Your task to perform on an android device: toggle javascript in the chrome app Image 0: 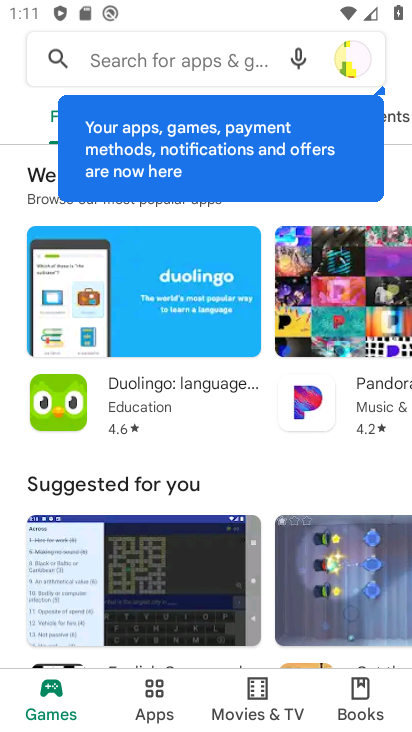
Step 0: press home button
Your task to perform on an android device: toggle javascript in the chrome app Image 1: 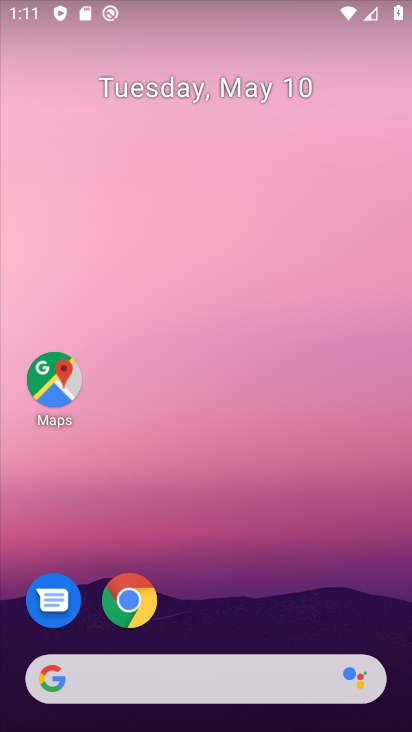
Step 1: drag from (217, 655) to (262, 212)
Your task to perform on an android device: toggle javascript in the chrome app Image 2: 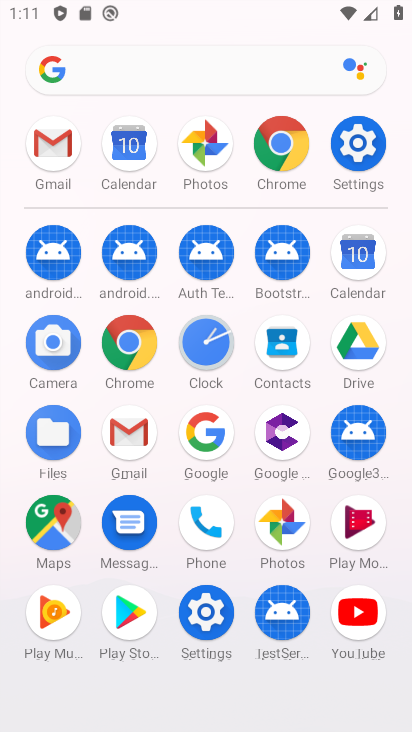
Step 2: click (281, 163)
Your task to perform on an android device: toggle javascript in the chrome app Image 3: 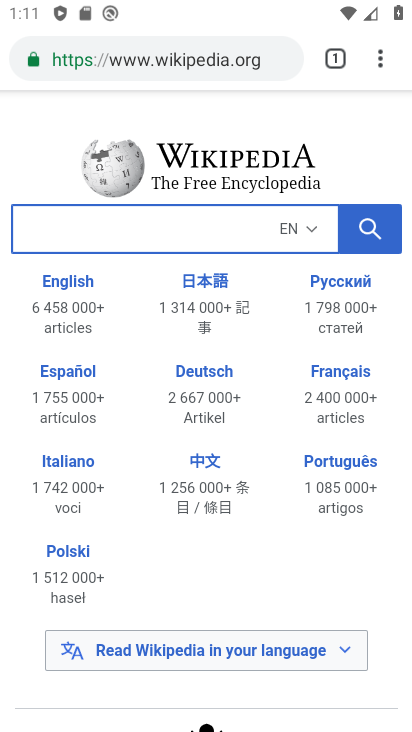
Step 3: click (375, 57)
Your task to perform on an android device: toggle javascript in the chrome app Image 4: 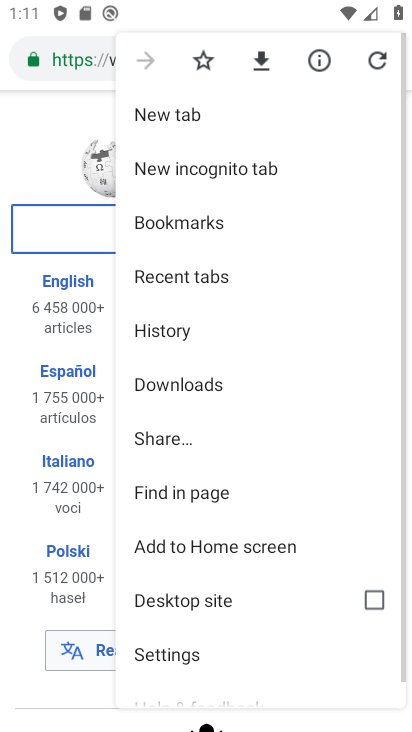
Step 4: drag from (245, 563) to (280, 240)
Your task to perform on an android device: toggle javascript in the chrome app Image 5: 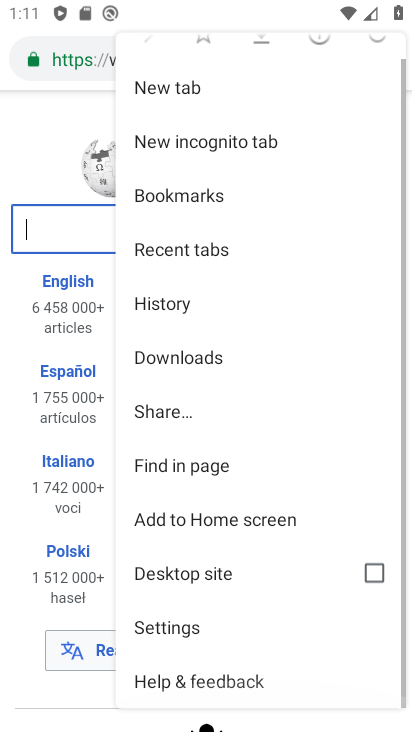
Step 5: click (287, 180)
Your task to perform on an android device: toggle javascript in the chrome app Image 6: 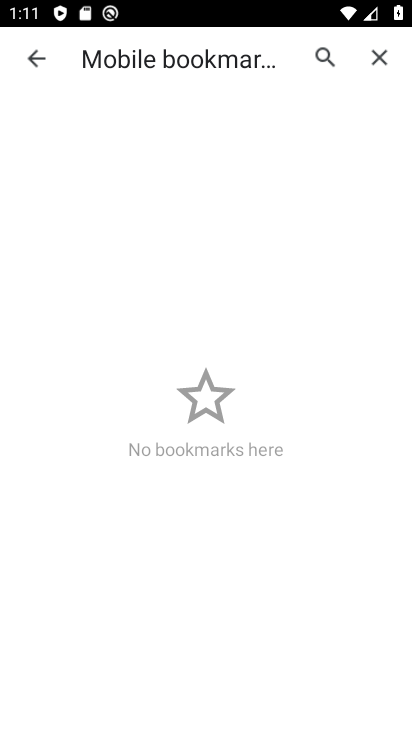
Step 6: click (46, 60)
Your task to perform on an android device: toggle javascript in the chrome app Image 7: 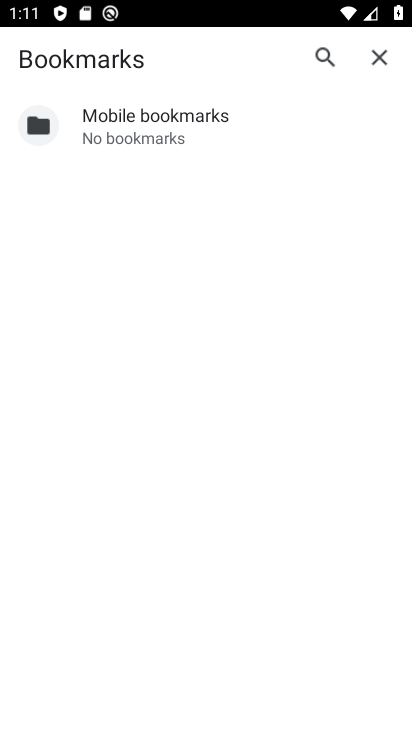
Step 7: click (374, 57)
Your task to perform on an android device: toggle javascript in the chrome app Image 8: 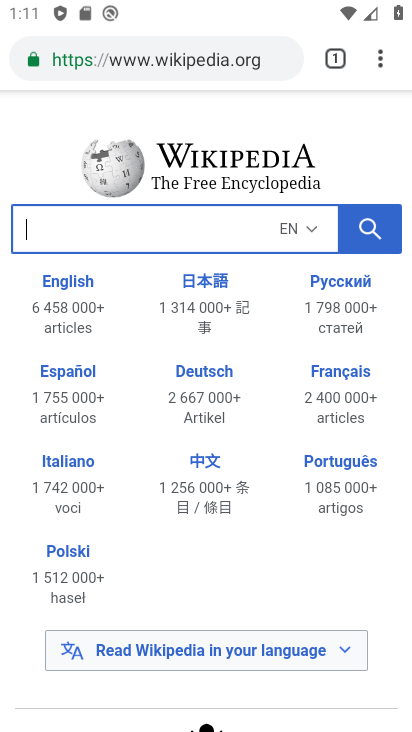
Step 8: click (380, 73)
Your task to perform on an android device: toggle javascript in the chrome app Image 9: 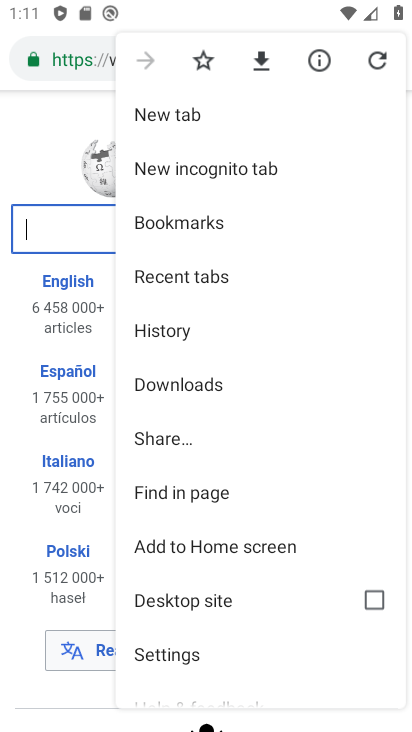
Step 9: drag from (284, 493) to (303, 178)
Your task to perform on an android device: toggle javascript in the chrome app Image 10: 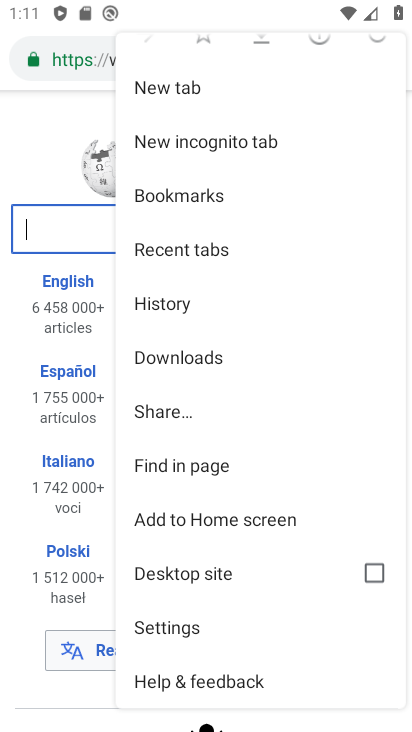
Step 10: click (224, 624)
Your task to perform on an android device: toggle javascript in the chrome app Image 11: 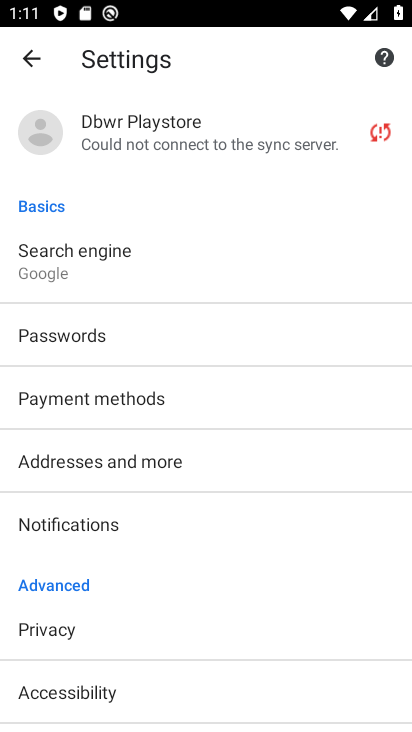
Step 11: drag from (146, 614) to (160, 345)
Your task to perform on an android device: toggle javascript in the chrome app Image 12: 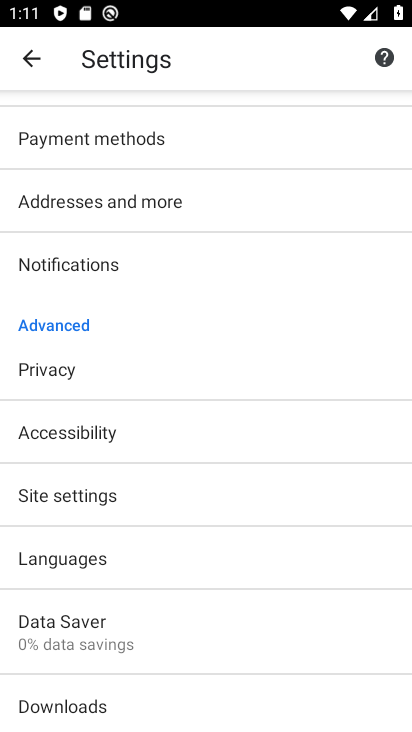
Step 12: click (133, 508)
Your task to perform on an android device: toggle javascript in the chrome app Image 13: 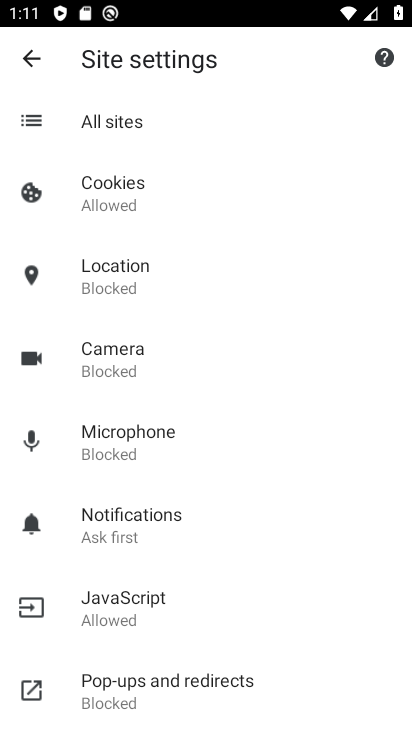
Step 13: click (138, 614)
Your task to perform on an android device: toggle javascript in the chrome app Image 14: 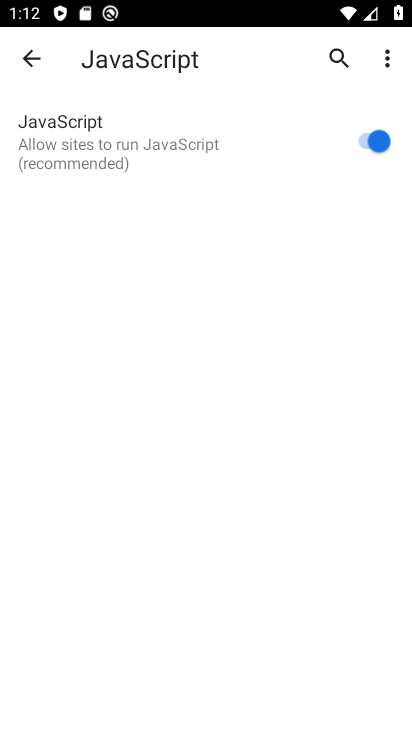
Step 14: task complete